Your task to perform on an android device: allow notifications from all sites in the chrome app Image 0: 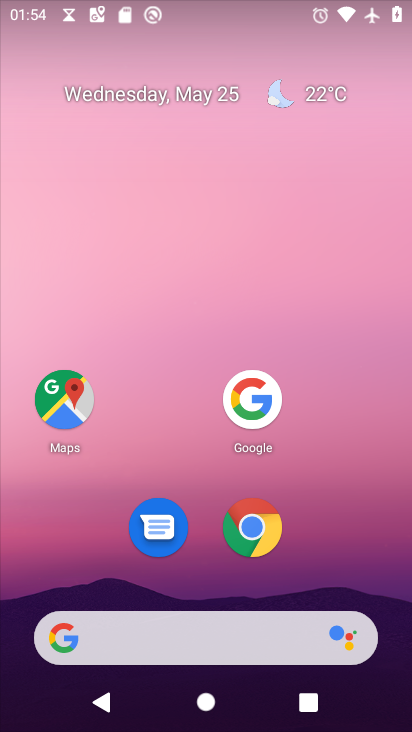
Step 0: press home button
Your task to perform on an android device: allow notifications from all sites in the chrome app Image 1: 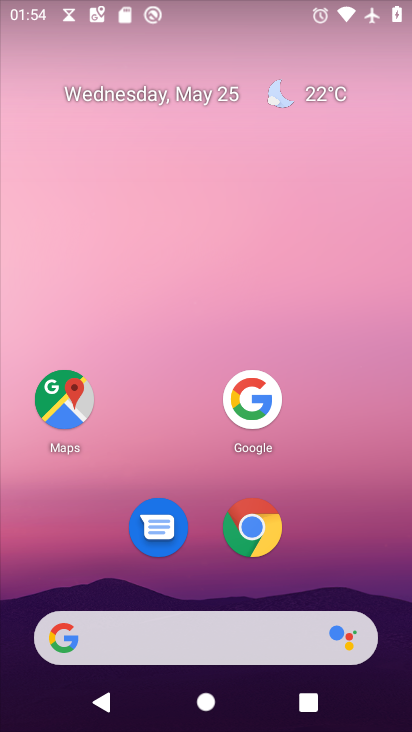
Step 1: click (262, 533)
Your task to perform on an android device: allow notifications from all sites in the chrome app Image 2: 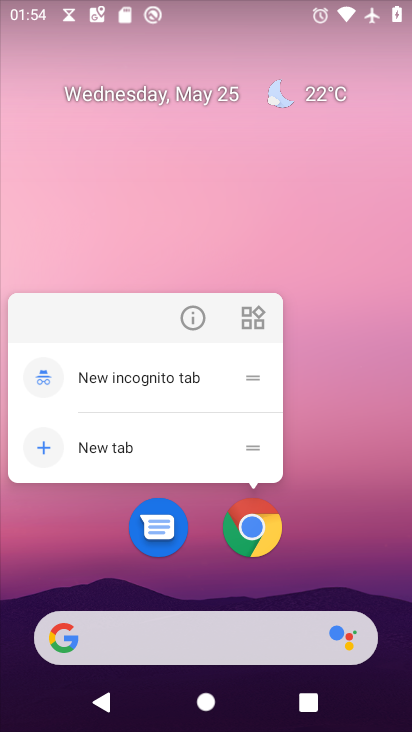
Step 2: click (254, 535)
Your task to perform on an android device: allow notifications from all sites in the chrome app Image 3: 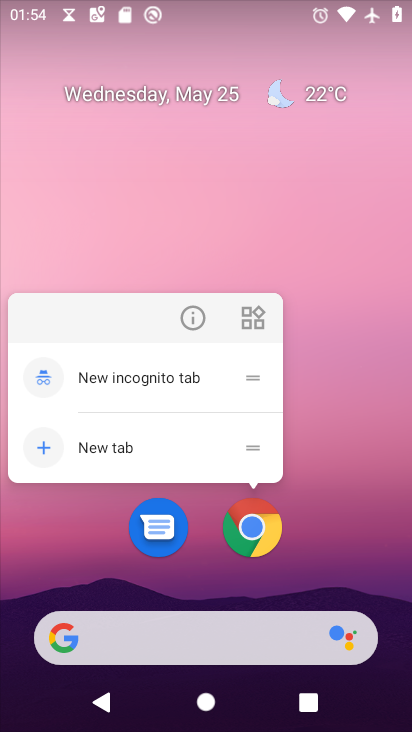
Step 3: click (254, 535)
Your task to perform on an android device: allow notifications from all sites in the chrome app Image 4: 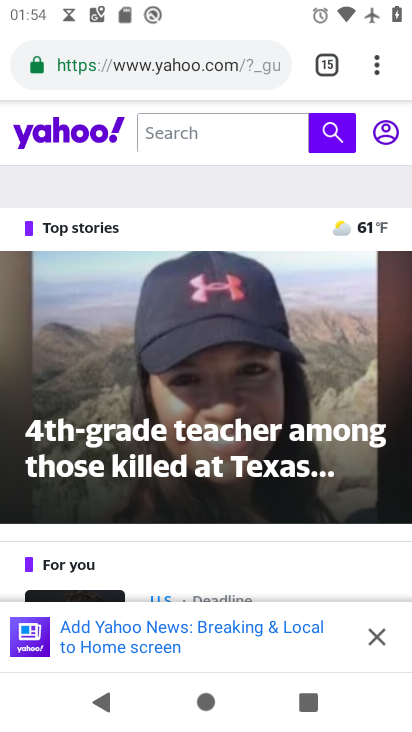
Step 4: drag from (375, 65) to (251, 573)
Your task to perform on an android device: allow notifications from all sites in the chrome app Image 5: 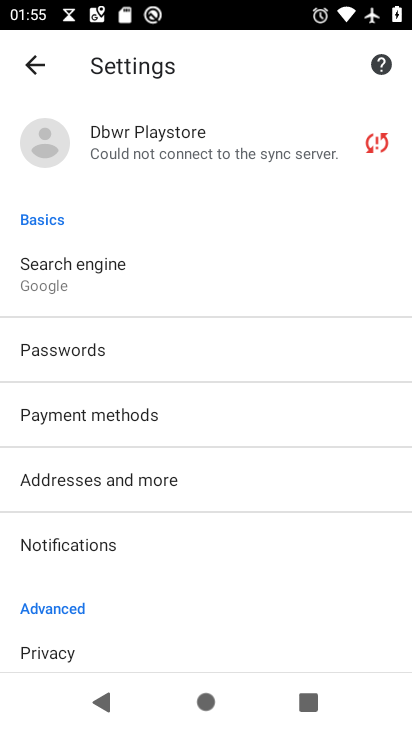
Step 5: drag from (234, 588) to (284, 209)
Your task to perform on an android device: allow notifications from all sites in the chrome app Image 6: 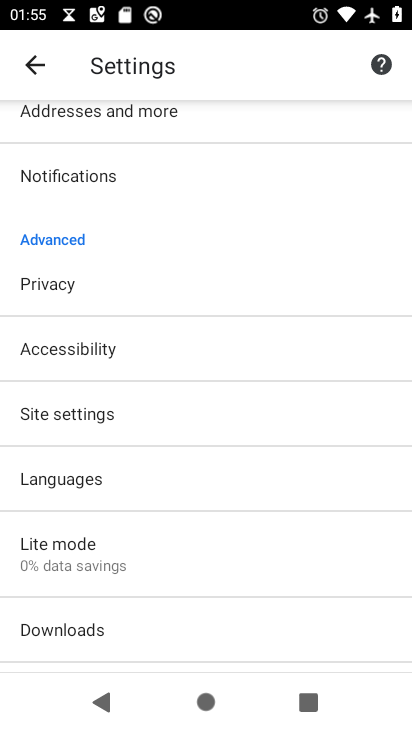
Step 6: click (120, 418)
Your task to perform on an android device: allow notifications from all sites in the chrome app Image 7: 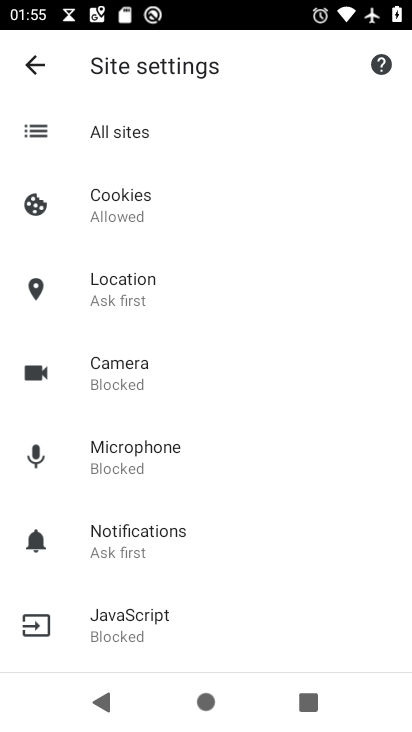
Step 7: click (155, 533)
Your task to perform on an android device: allow notifications from all sites in the chrome app Image 8: 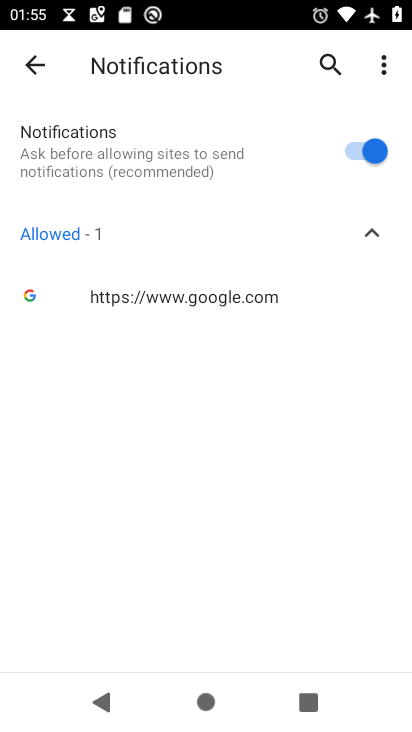
Step 8: task complete